Your task to perform on an android device: Go to ESPN.com Image 0: 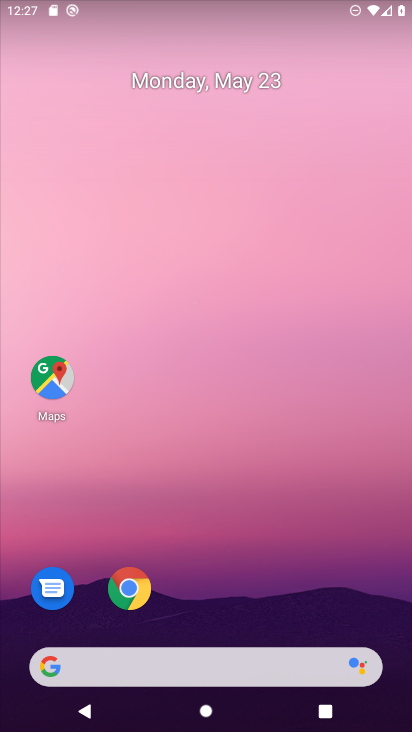
Step 0: click (127, 581)
Your task to perform on an android device: Go to ESPN.com Image 1: 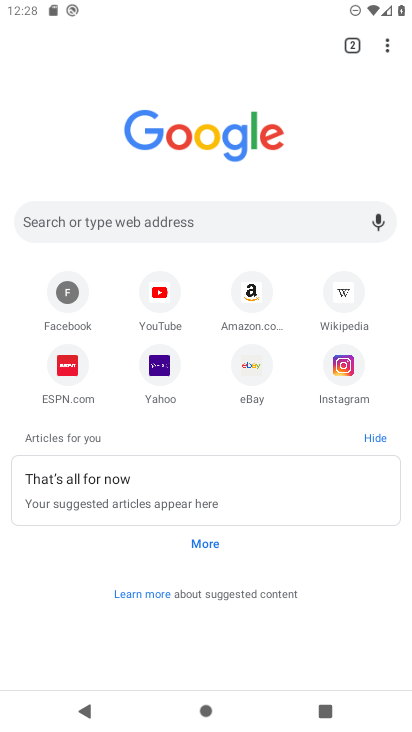
Step 1: click (57, 361)
Your task to perform on an android device: Go to ESPN.com Image 2: 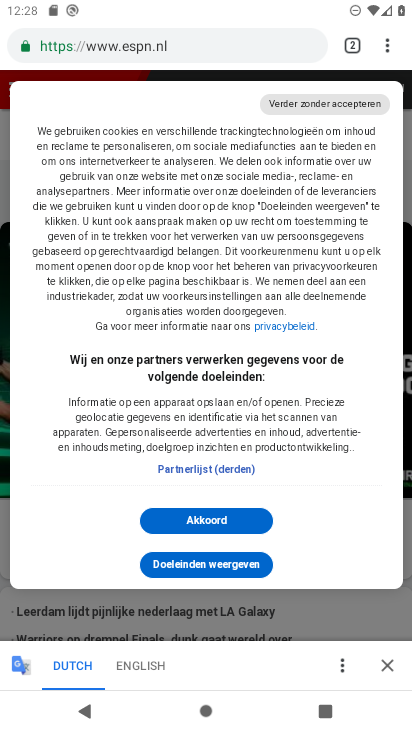
Step 2: click (394, 669)
Your task to perform on an android device: Go to ESPN.com Image 3: 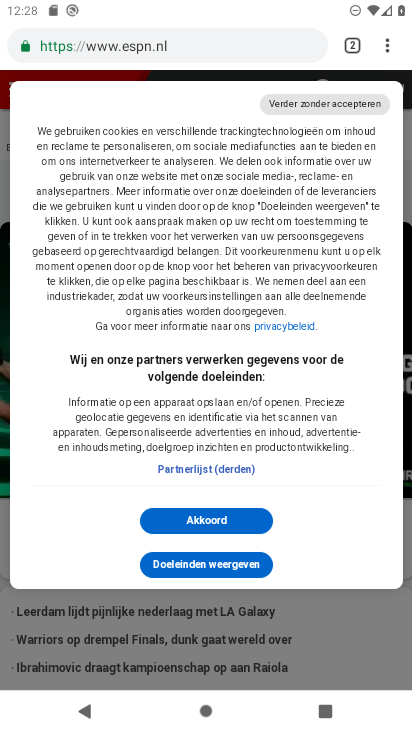
Step 3: task complete